Your task to perform on an android device: uninstall "Google Translate" Image 0: 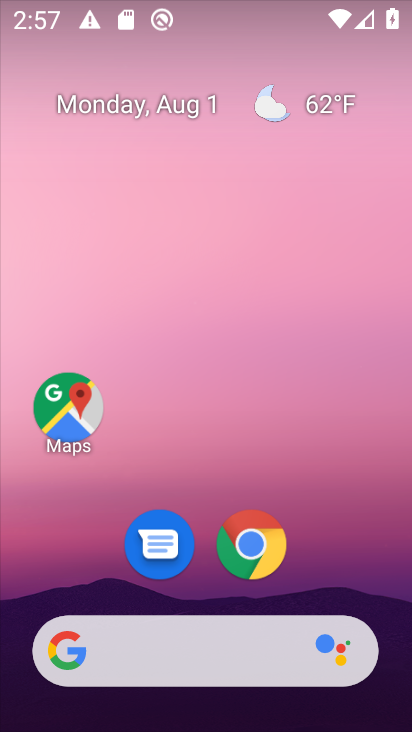
Step 0: drag from (381, 578) to (231, 58)
Your task to perform on an android device: uninstall "Google Translate" Image 1: 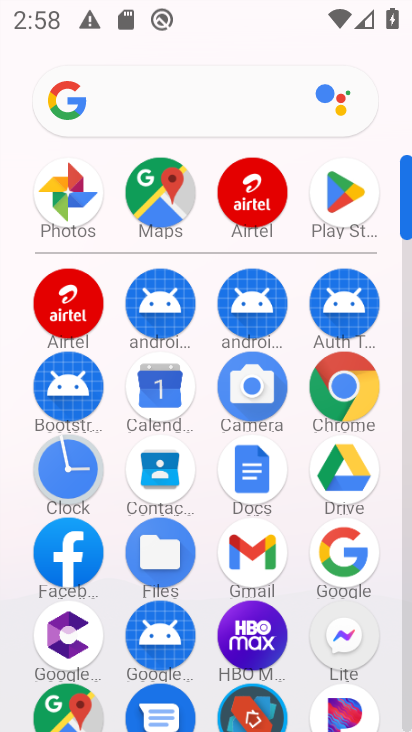
Step 1: click (345, 208)
Your task to perform on an android device: uninstall "Google Translate" Image 2: 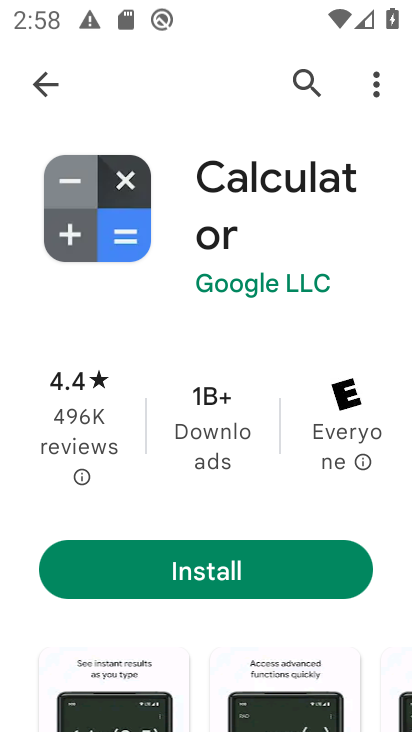
Step 2: press back button
Your task to perform on an android device: uninstall "Google Translate" Image 3: 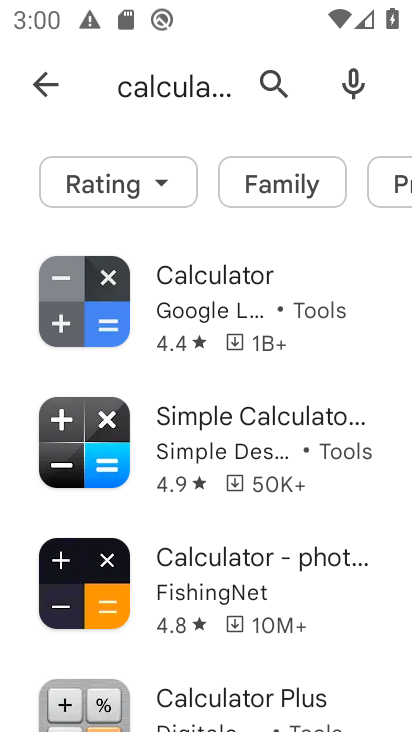
Step 3: press back button
Your task to perform on an android device: uninstall "Google Translate" Image 4: 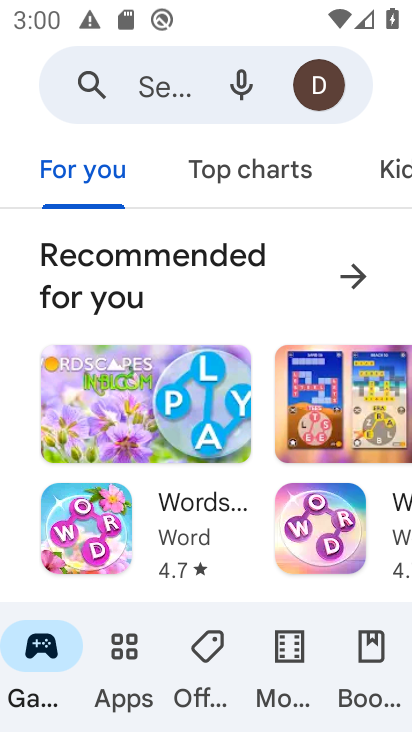
Step 4: click (160, 83)
Your task to perform on an android device: uninstall "Google Translate" Image 5: 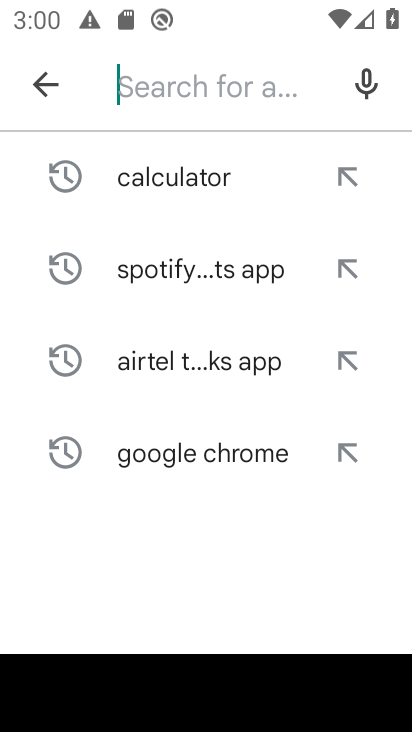
Step 5: type "Google Translate"
Your task to perform on an android device: uninstall "Google Translate" Image 6: 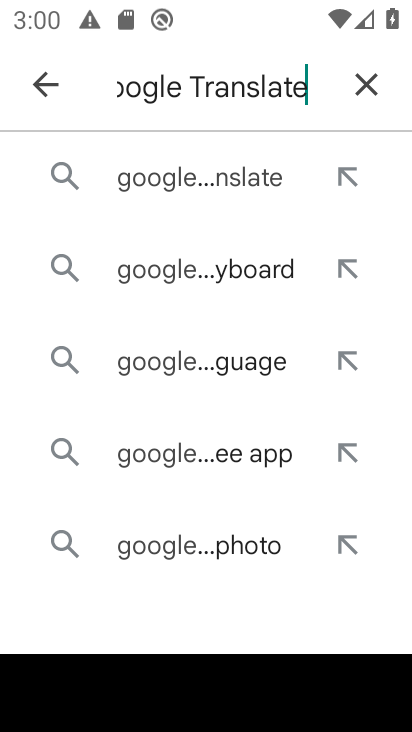
Step 6: click (201, 182)
Your task to perform on an android device: uninstall "Google Translate" Image 7: 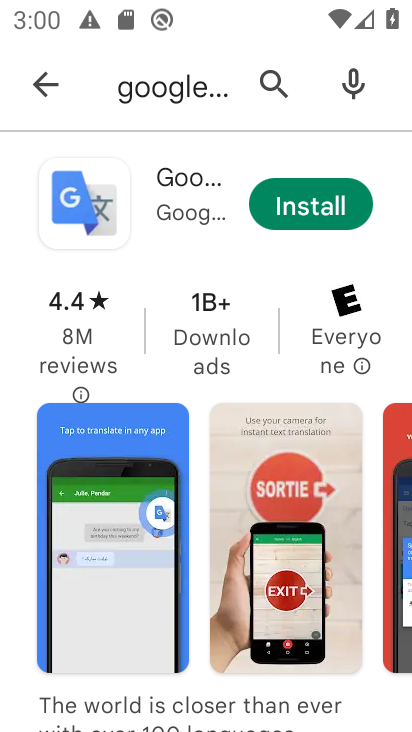
Step 7: task complete